Your task to perform on an android device: Open the web browser Image 0: 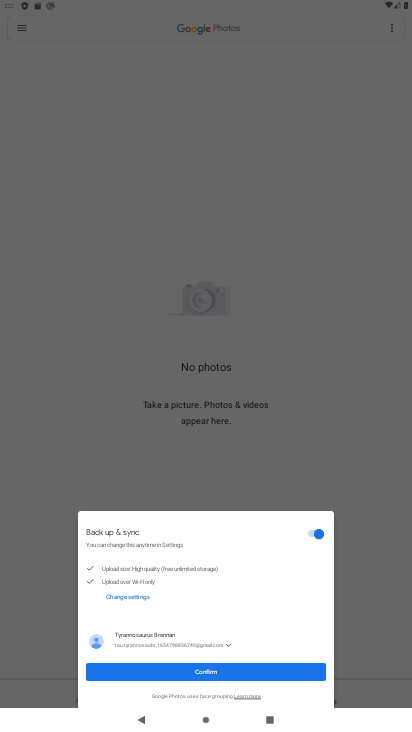
Step 0: press home button
Your task to perform on an android device: Open the web browser Image 1: 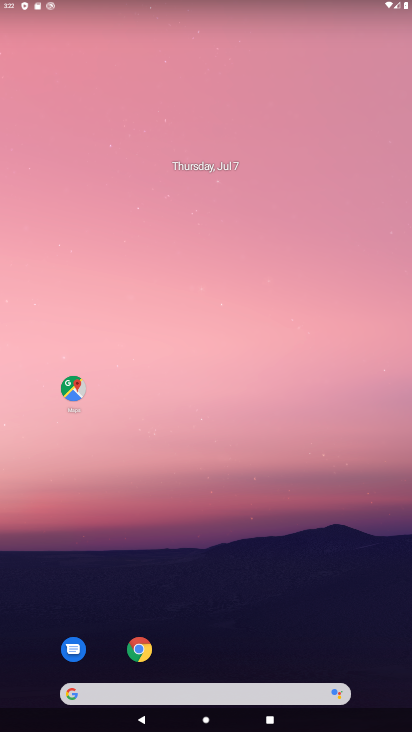
Step 1: drag from (372, 657) to (263, 145)
Your task to perform on an android device: Open the web browser Image 2: 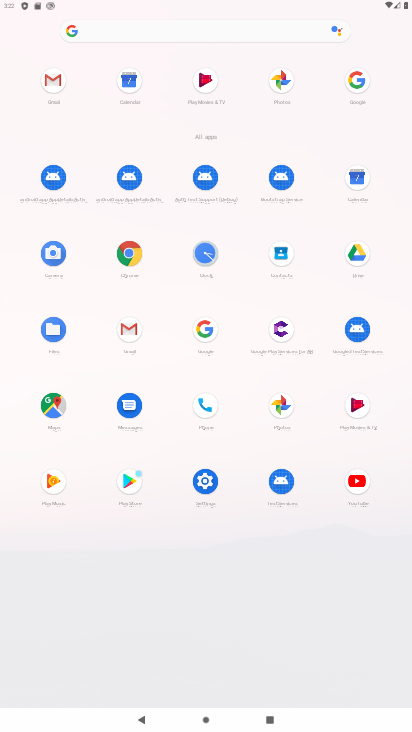
Step 2: click (349, 79)
Your task to perform on an android device: Open the web browser Image 3: 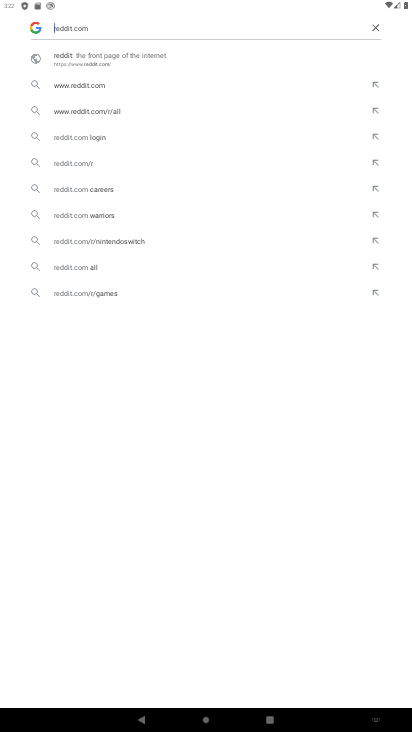
Step 3: click (373, 28)
Your task to perform on an android device: Open the web browser Image 4: 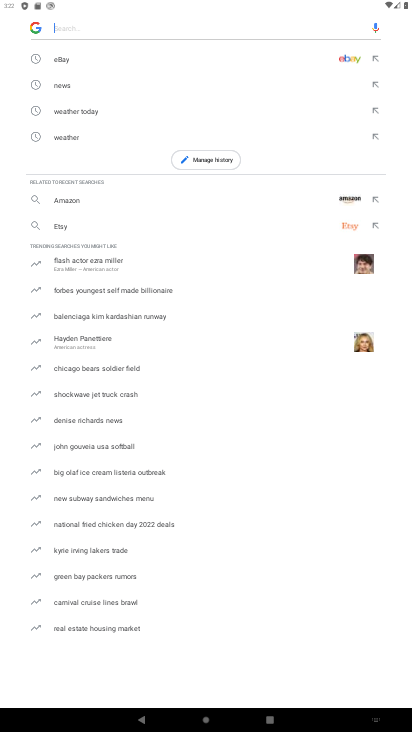
Step 4: type "web browser"
Your task to perform on an android device: Open the web browser Image 5: 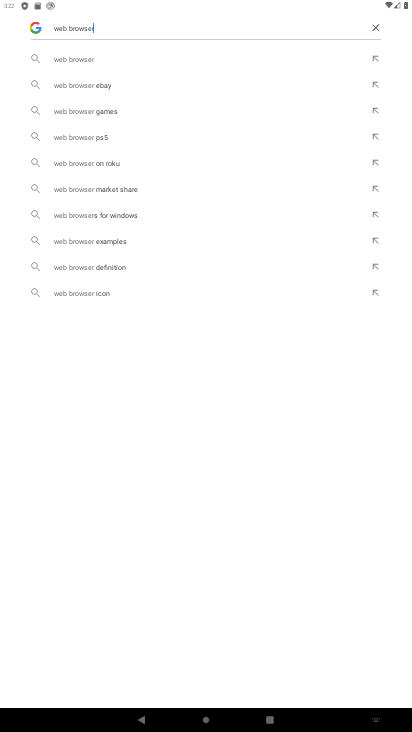
Step 5: click (103, 62)
Your task to perform on an android device: Open the web browser Image 6: 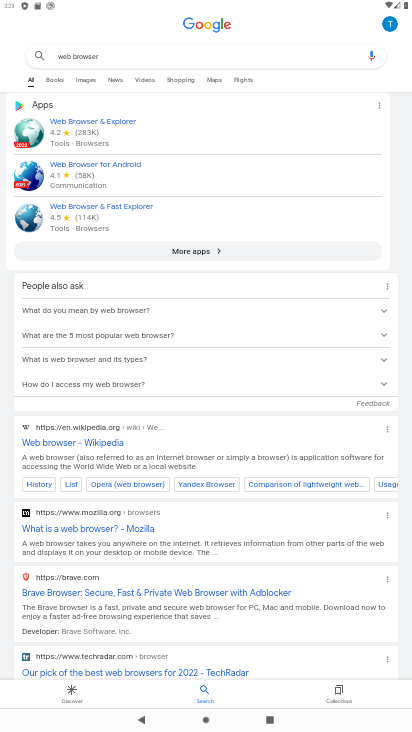
Step 6: task complete